Your task to perform on an android device: change the clock display to digital Image 0: 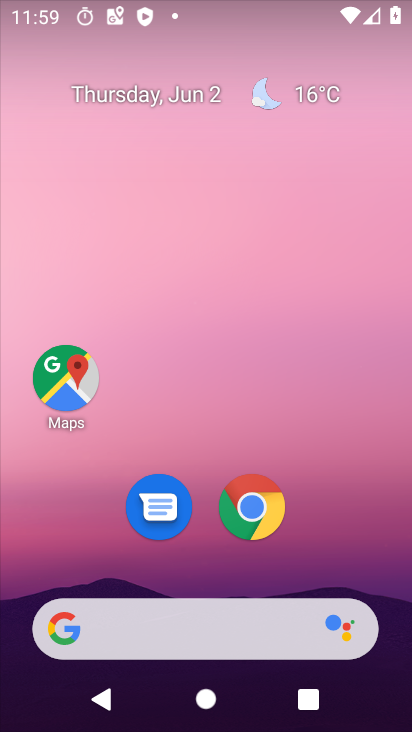
Step 0: drag from (404, 618) to (366, 74)
Your task to perform on an android device: change the clock display to digital Image 1: 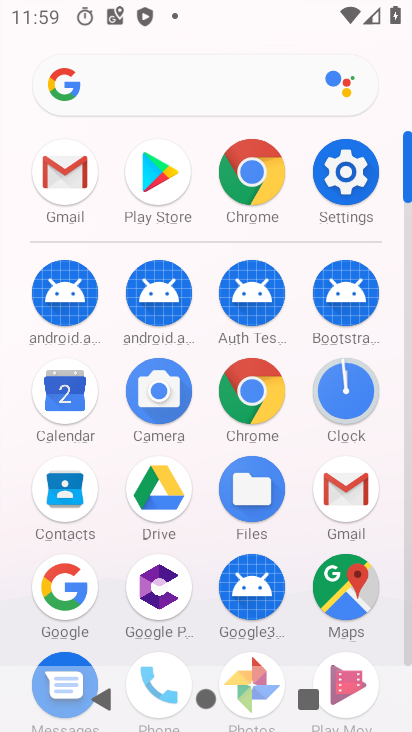
Step 1: click (356, 408)
Your task to perform on an android device: change the clock display to digital Image 2: 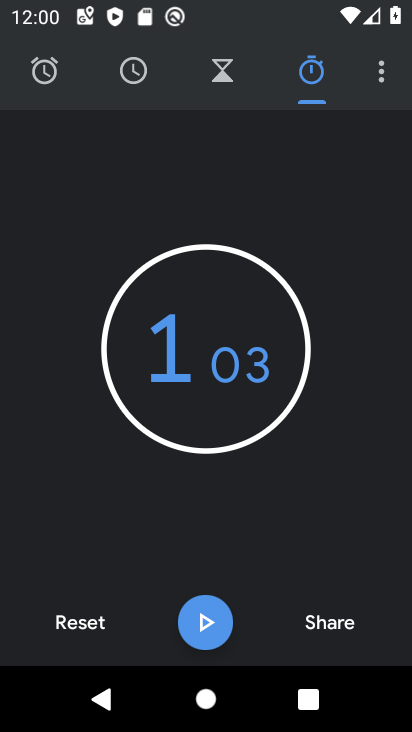
Step 2: click (390, 70)
Your task to perform on an android device: change the clock display to digital Image 3: 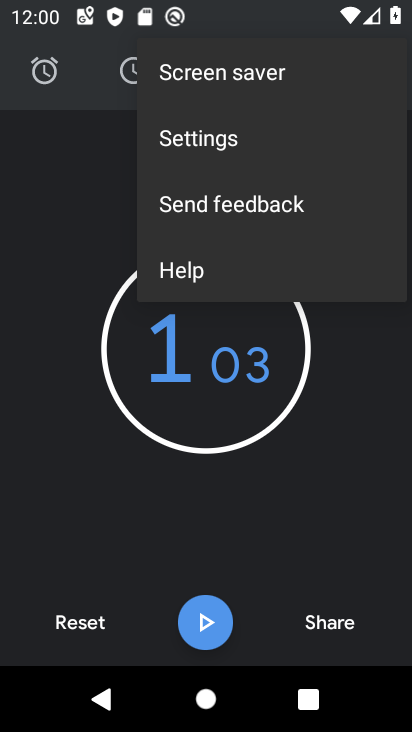
Step 3: click (250, 145)
Your task to perform on an android device: change the clock display to digital Image 4: 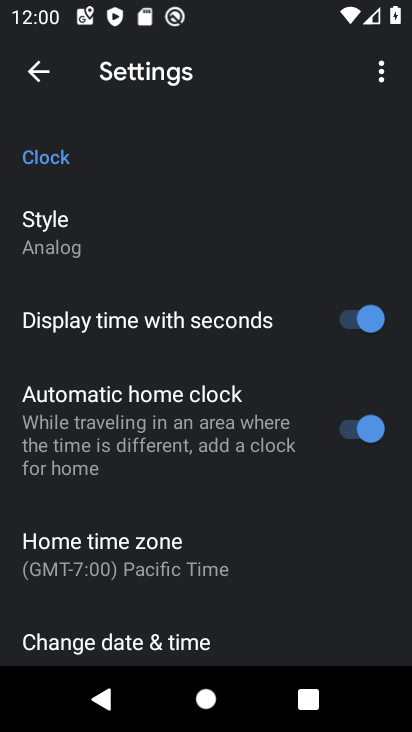
Step 4: click (127, 220)
Your task to perform on an android device: change the clock display to digital Image 5: 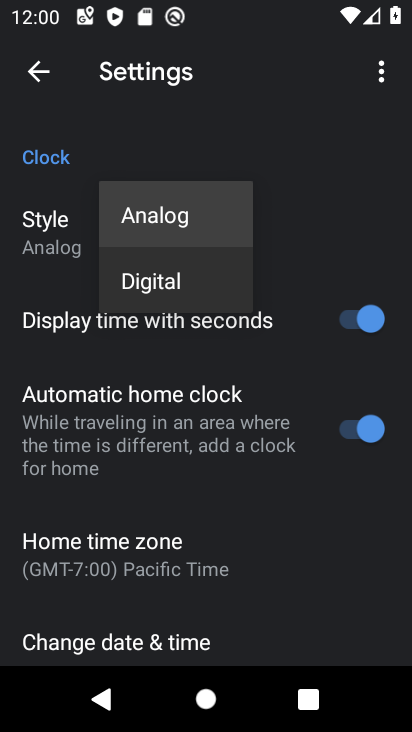
Step 5: click (177, 294)
Your task to perform on an android device: change the clock display to digital Image 6: 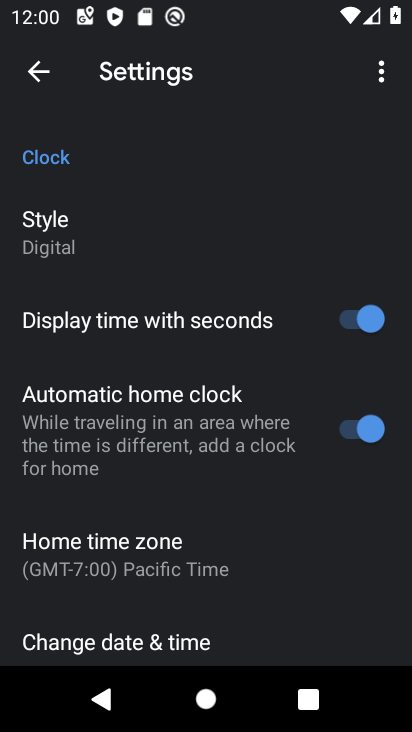
Step 6: task complete